Your task to perform on an android device: turn off location history Image 0: 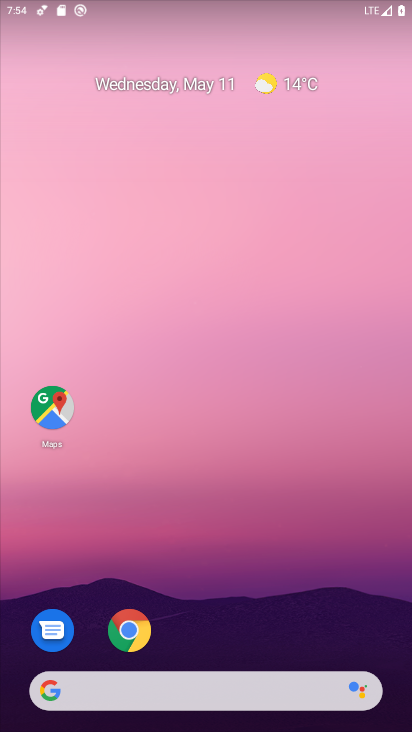
Step 0: drag from (53, 625) to (392, 166)
Your task to perform on an android device: turn off location history Image 1: 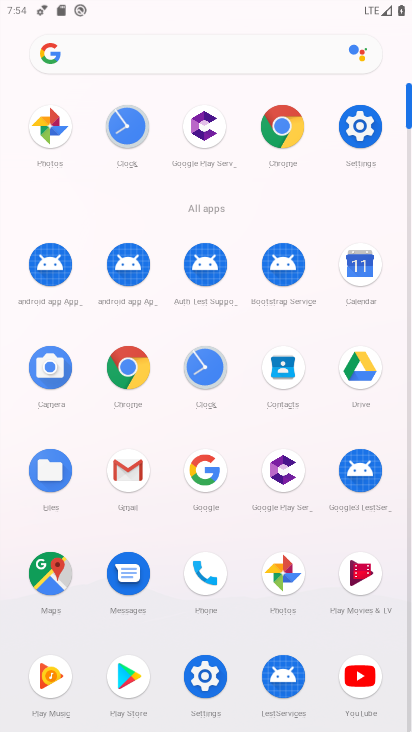
Step 1: click (203, 674)
Your task to perform on an android device: turn off location history Image 2: 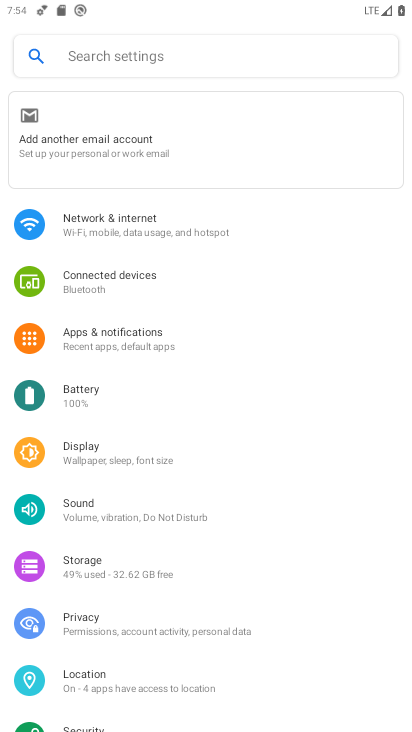
Step 2: click (113, 668)
Your task to perform on an android device: turn off location history Image 3: 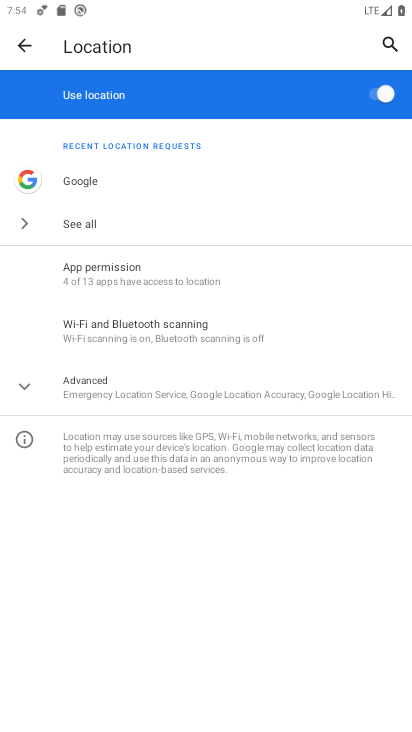
Step 3: click (142, 395)
Your task to perform on an android device: turn off location history Image 4: 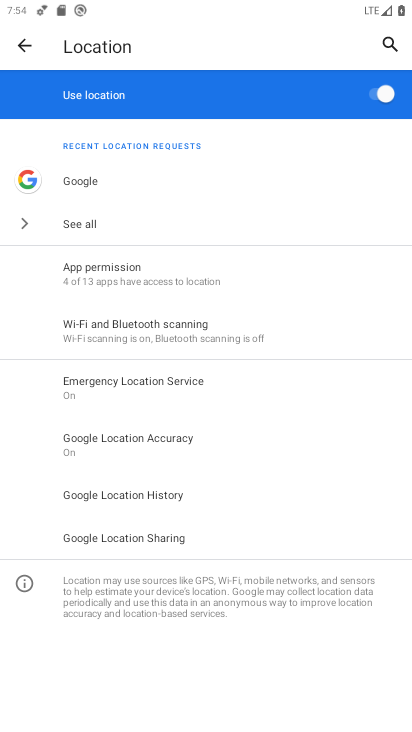
Step 4: click (141, 493)
Your task to perform on an android device: turn off location history Image 5: 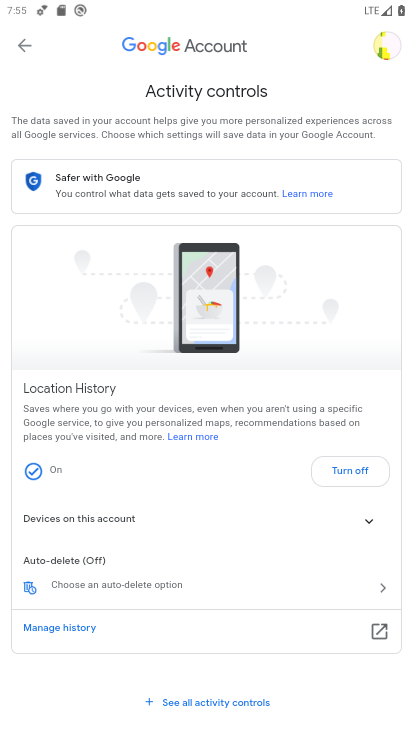
Step 5: click (334, 464)
Your task to perform on an android device: turn off location history Image 6: 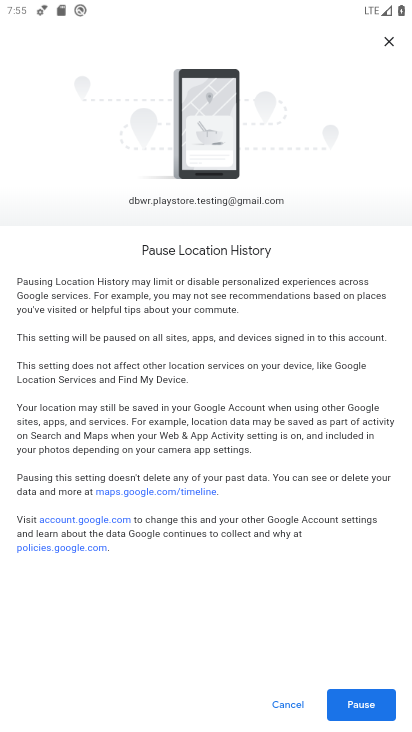
Step 6: click (348, 696)
Your task to perform on an android device: turn off location history Image 7: 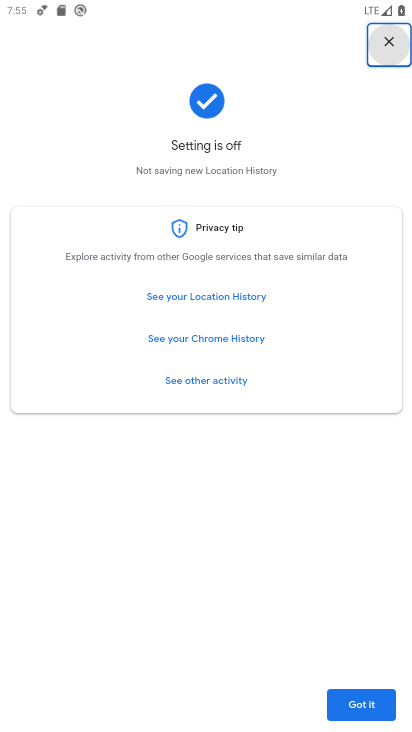
Step 7: click (377, 700)
Your task to perform on an android device: turn off location history Image 8: 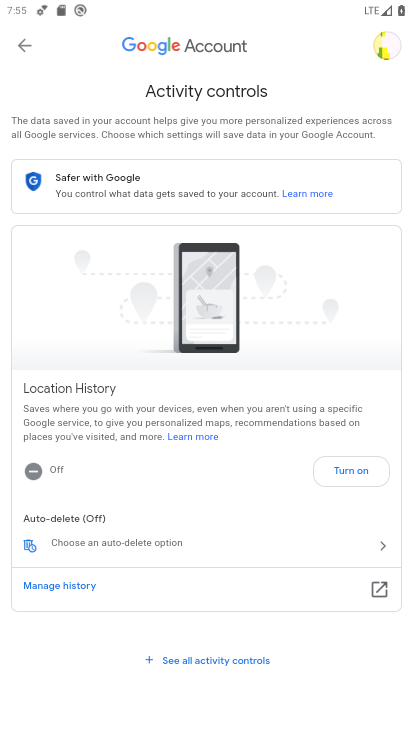
Step 8: task complete